Your task to perform on an android device: Open accessibility settings Image 0: 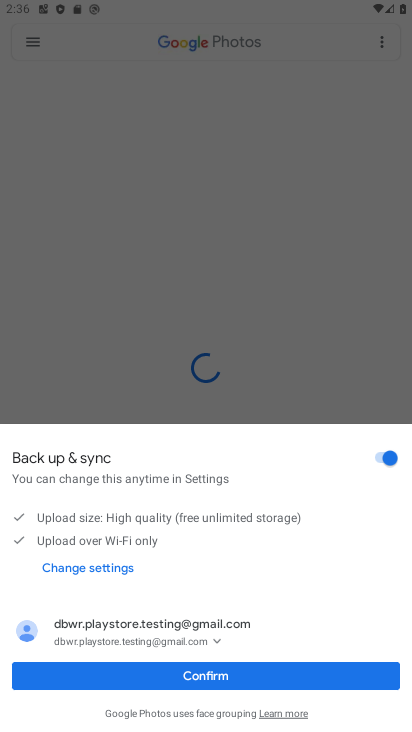
Step 0: press home button
Your task to perform on an android device: Open accessibility settings Image 1: 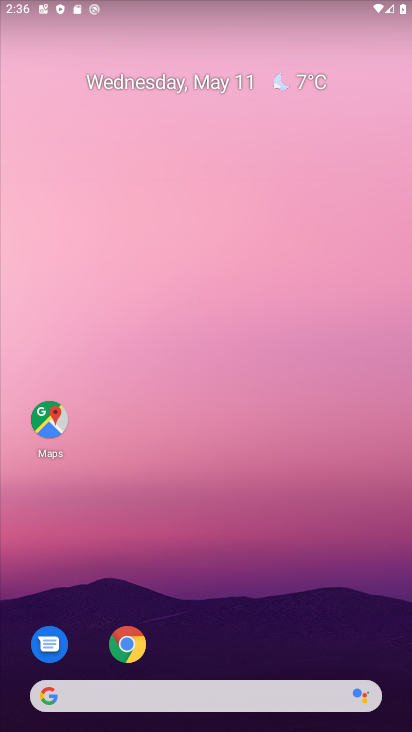
Step 1: drag from (189, 640) to (235, 58)
Your task to perform on an android device: Open accessibility settings Image 2: 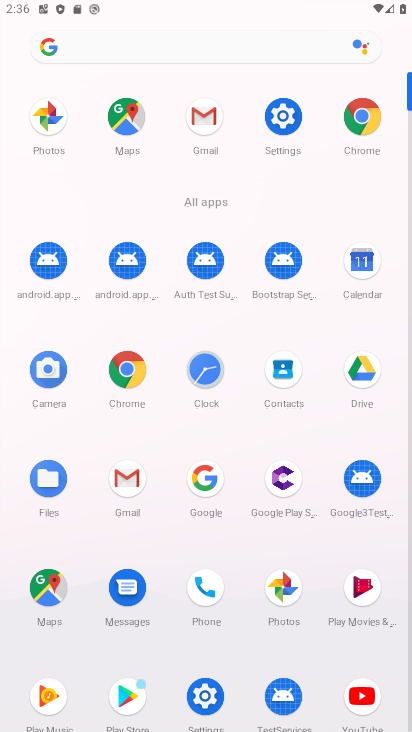
Step 2: click (286, 114)
Your task to perform on an android device: Open accessibility settings Image 3: 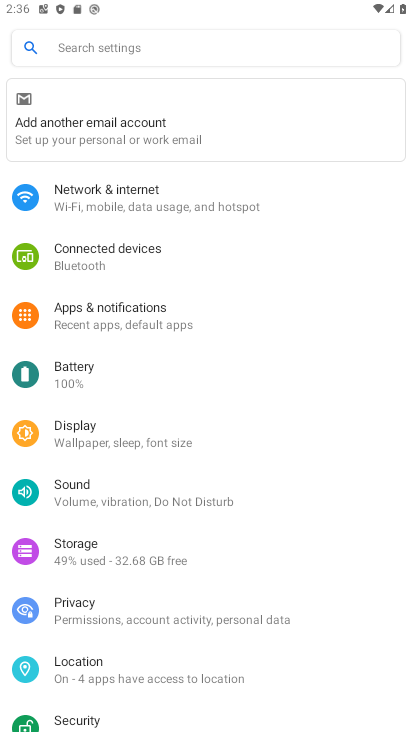
Step 3: drag from (166, 676) to (188, 144)
Your task to perform on an android device: Open accessibility settings Image 4: 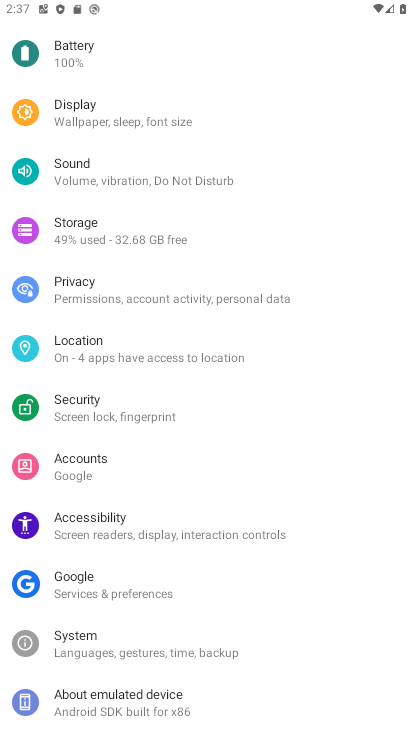
Step 4: click (142, 518)
Your task to perform on an android device: Open accessibility settings Image 5: 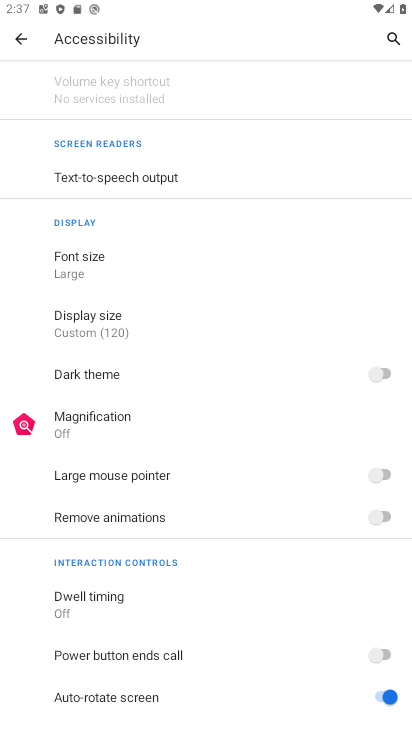
Step 5: task complete